Your task to perform on an android device: Open internet settings Image 0: 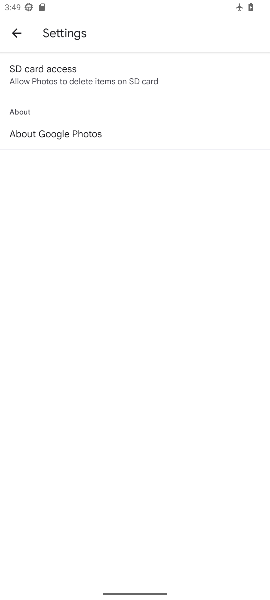
Step 0: press home button
Your task to perform on an android device: Open internet settings Image 1: 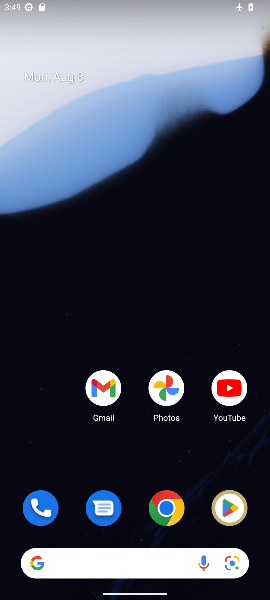
Step 1: drag from (140, 464) to (131, 105)
Your task to perform on an android device: Open internet settings Image 2: 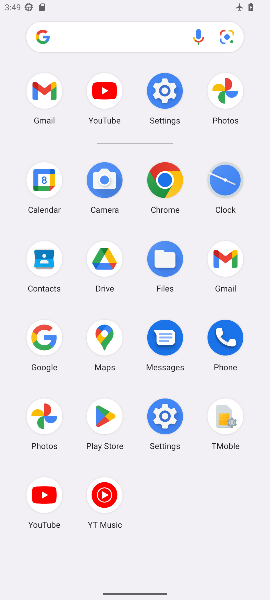
Step 2: click (170, 90)
Your task to perform on an android device: Open internet settings Image 3: 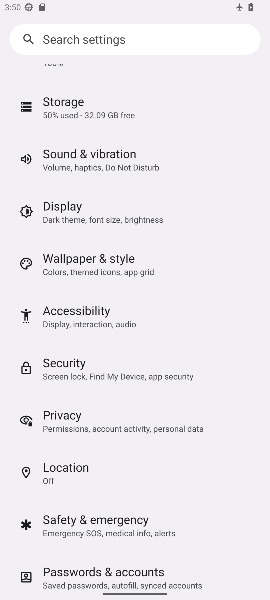
Step 3: drag from (149, 136) to (178, 564)
Your task to perform on an android device: Open internet settings Image 4: 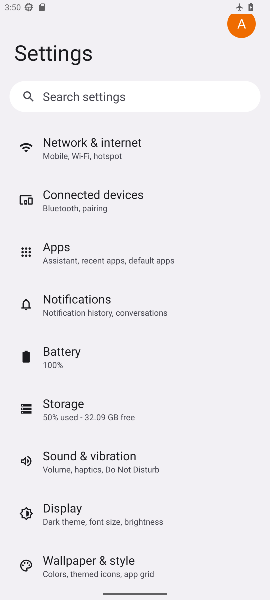
Step 4: click (98, 145)
Your task to perform on an android device: Open internet settings Image 5: 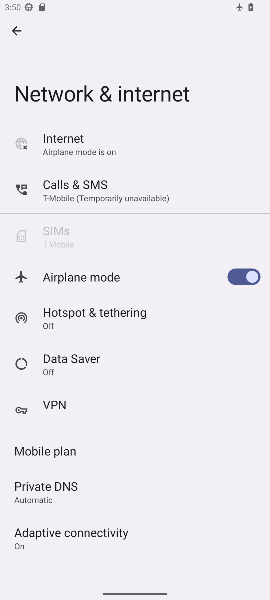
Step 5: click (69, 140)
Your task to perform on an android device: Open internet settings Image 6: 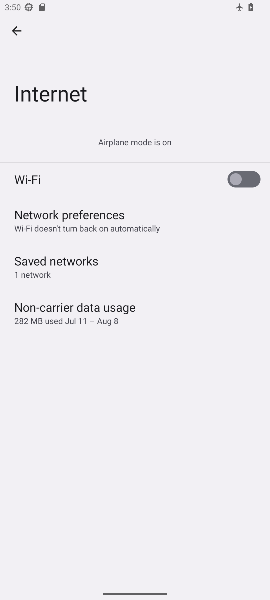
Step 6: task complete